Your task to perform on an android device: uninstall "Google Home" Image 0: 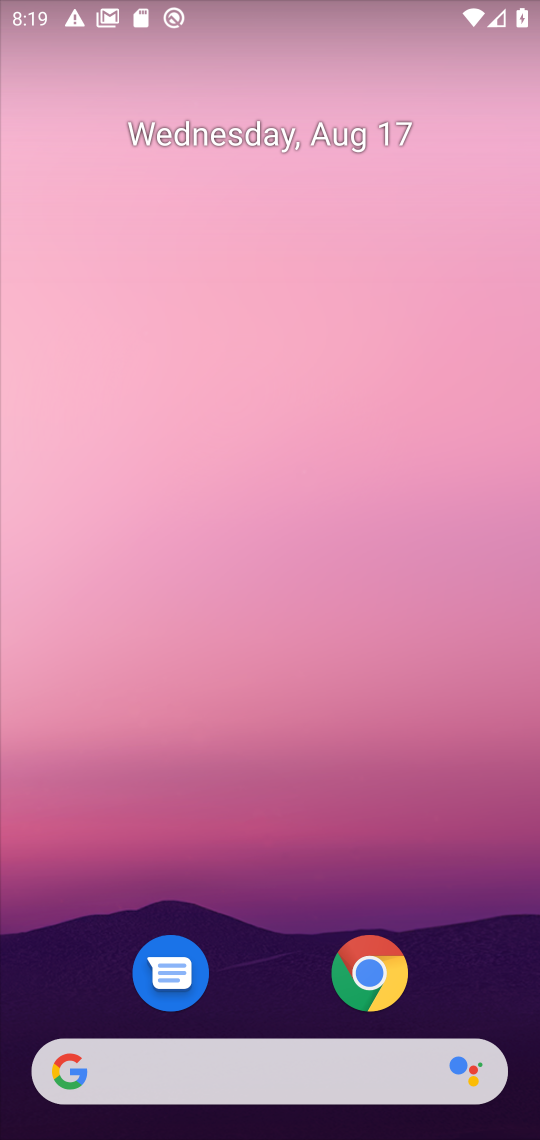
Step 0: drag from (276, 976) to (325, 26)
Your task to perform on an android device: uninstall "Google Home" Image 1: 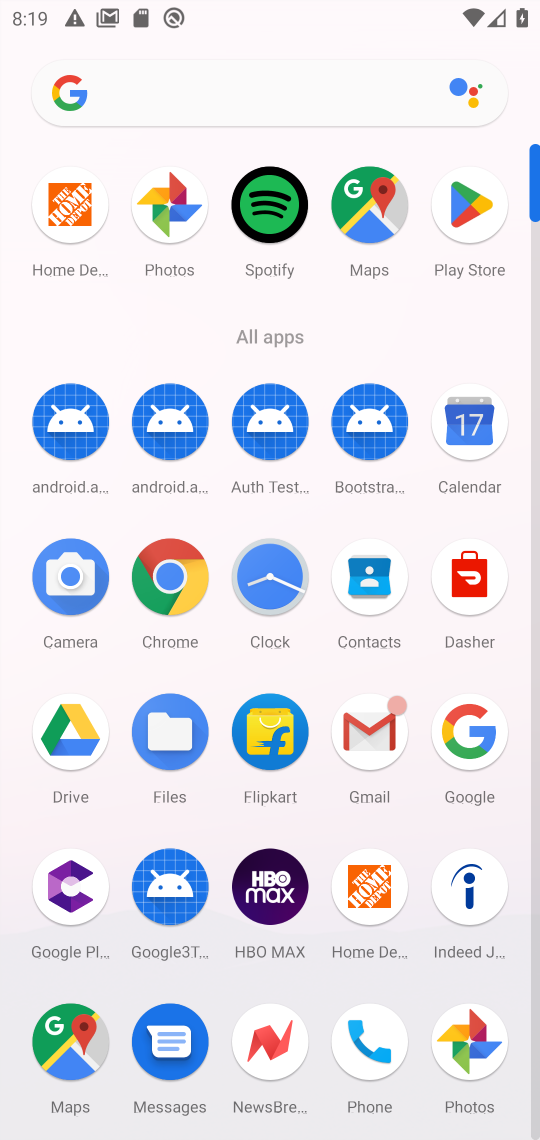
Step 1: click (479, 238)
Your task to perform on an android device: uninstall "Google Home" Image 2: 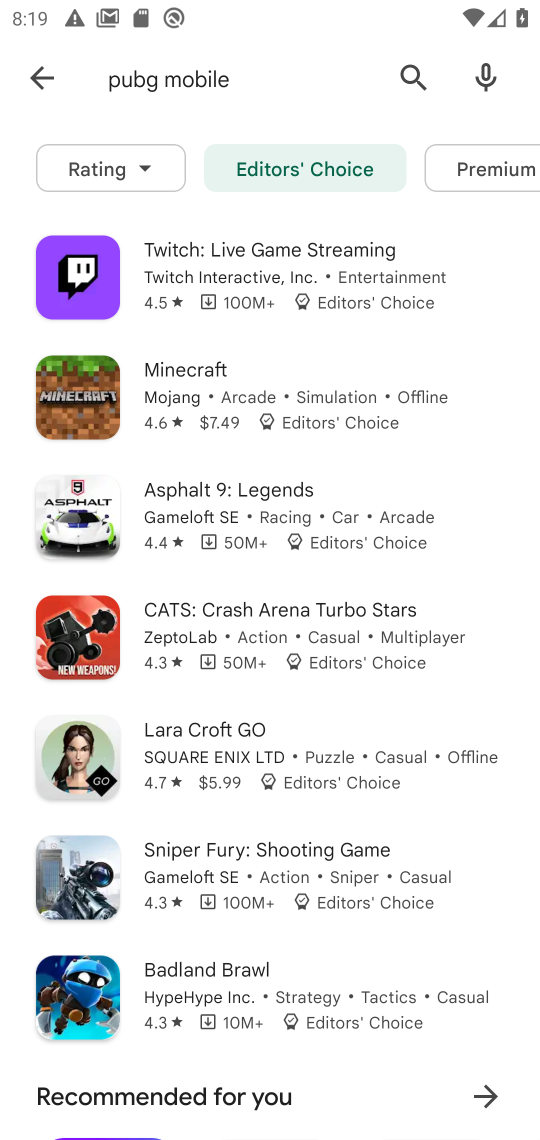
Step 2: click (57, 83)
Your task to perform on an android device: uninstall "Google Home" Image 3: 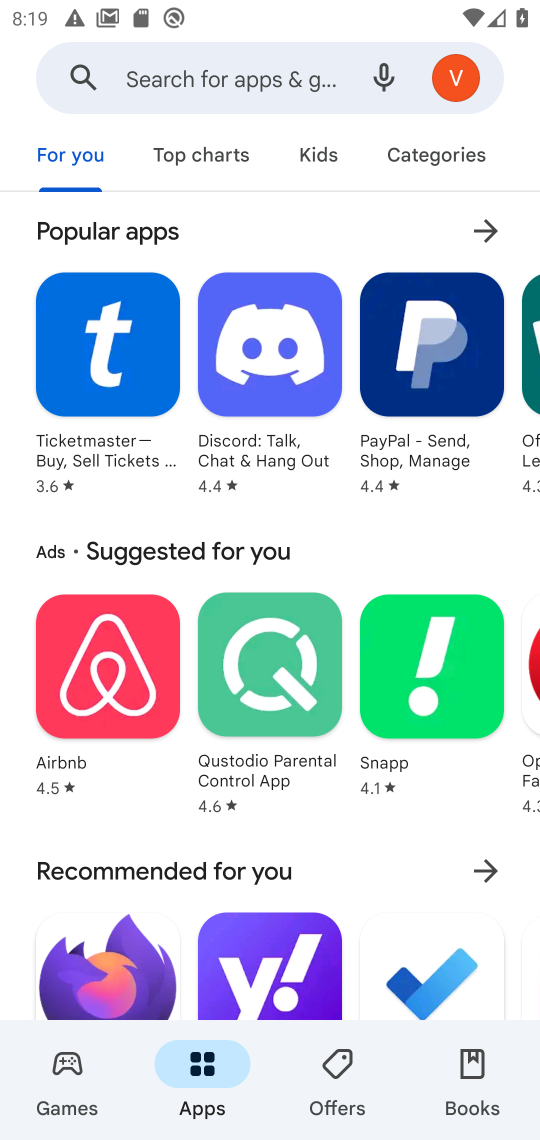
Step 3: click (112, 86)
Your task to perform on an android device: uninstall "Google Home" Image 4: 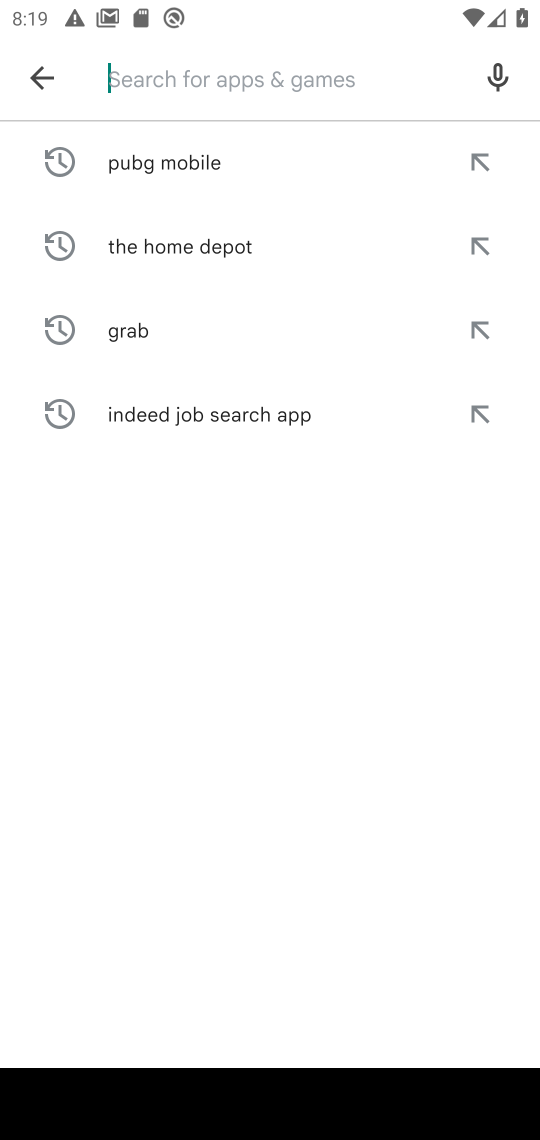
Step 4: type "Google Home"
Your task to perform on an android device: uninstall "Google Home" Image 5: 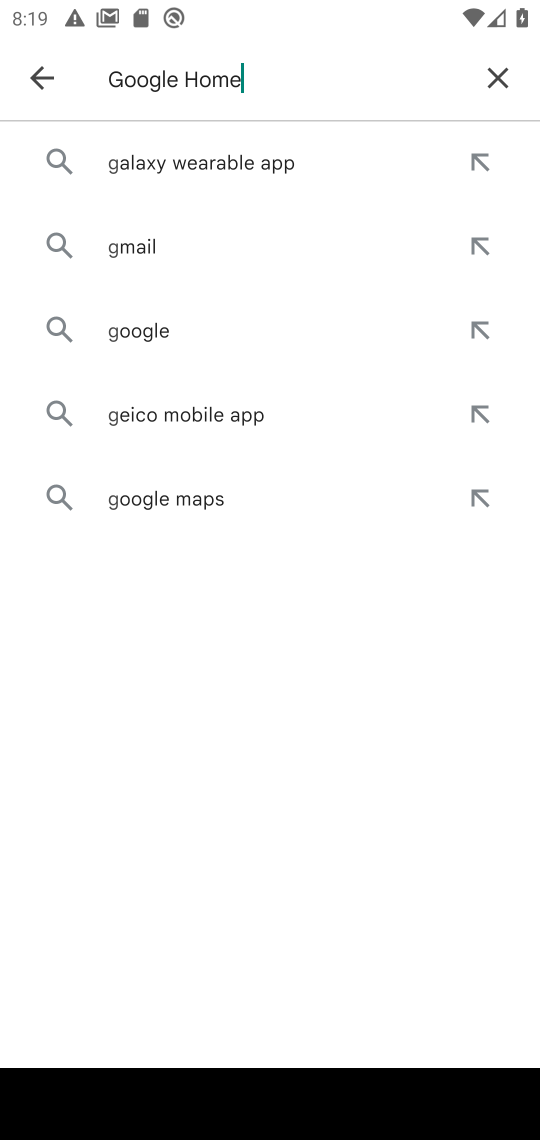
Step 5: type ""
Your task to perform on an android device: uninstall "Google Home" Image 6: 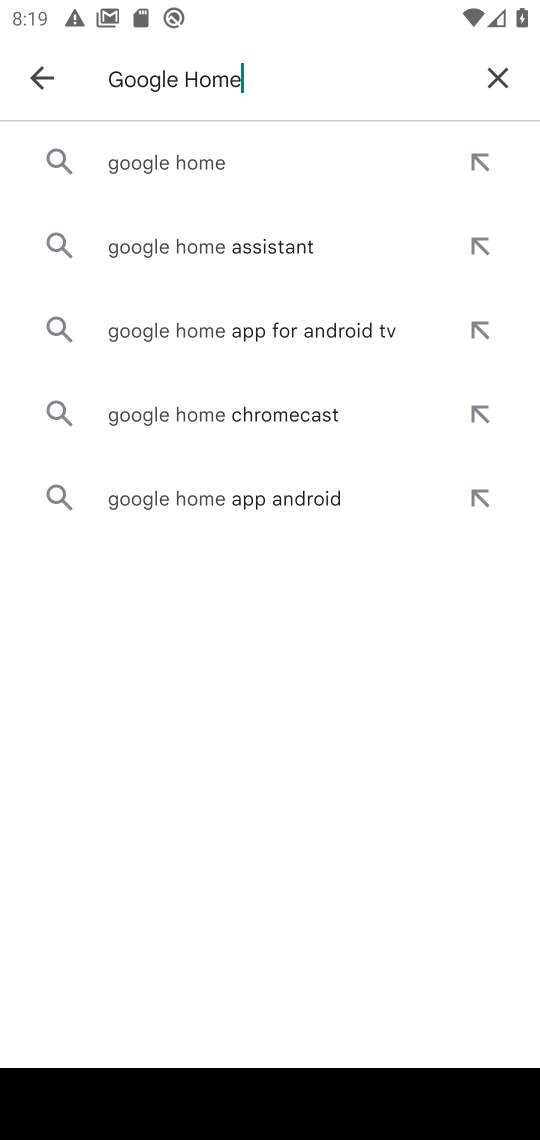
Step 6: click (177, 163)
Your task to perform on an android device: uninstall "Google Home" Image 7: 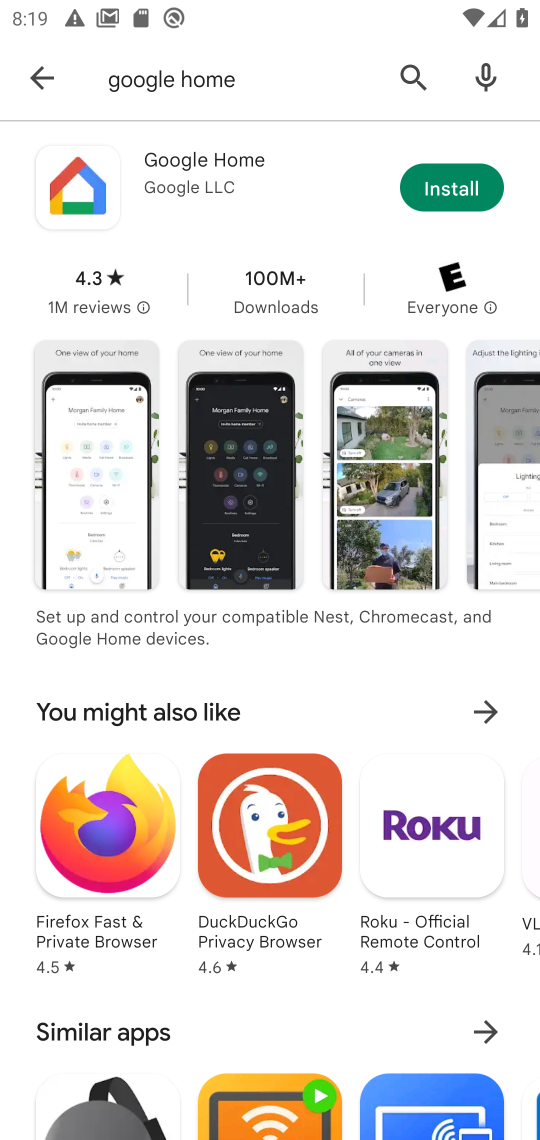
Step 7: task complete